Your task to perform on an android device: Open Yahoo.com Image 0: 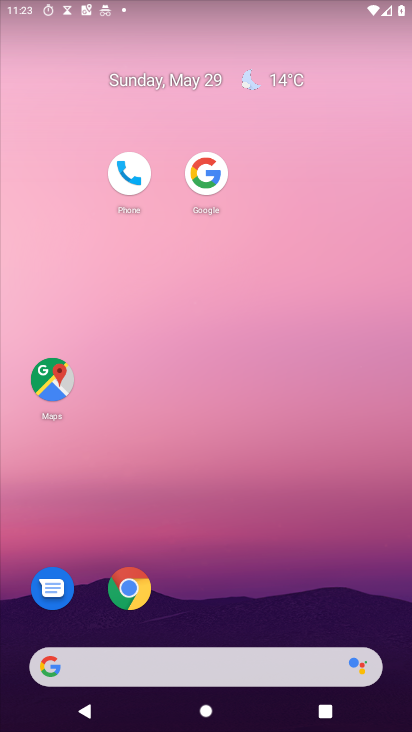
Step 0: drag from (266, 632) to (257, 137)
Your task to perform on an android device: Open Yahoo.com Image 1: 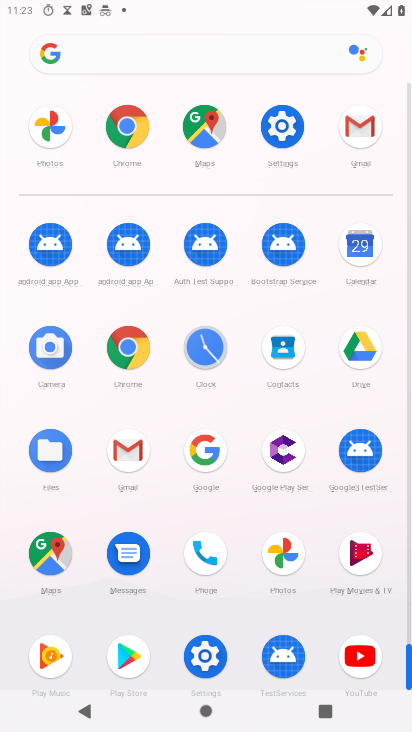
Step 1: click (123, 132)
Your task to perform on an android device: Open Yahoo.com Image 2: 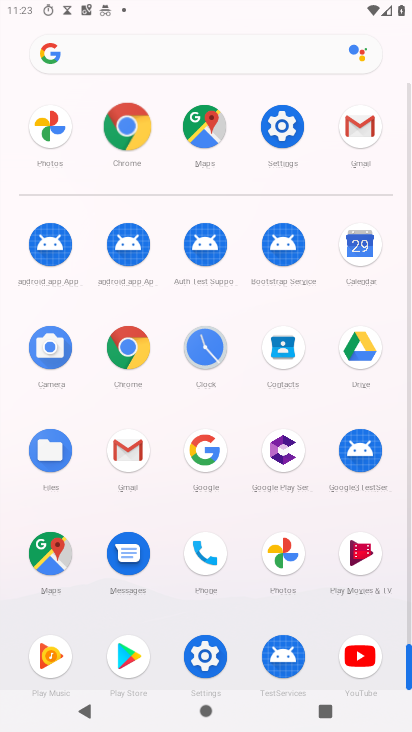
Step 2: click (128, 133)
Your task to perform on an android device: Open Yahoo.com Image 3: 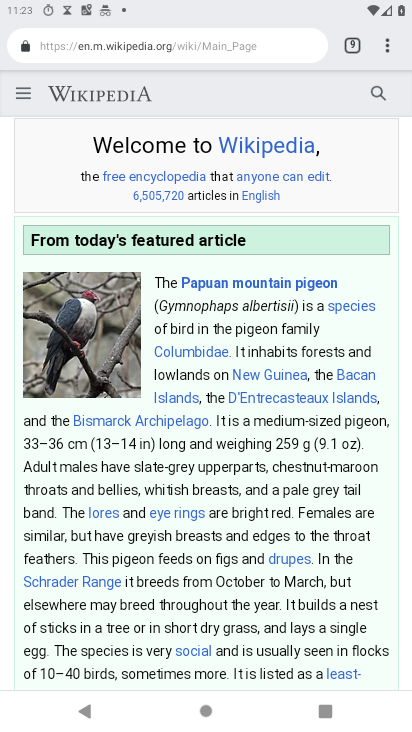
Step 3: click (389, 43)
Your task to perform on an android device: Open Yahoo.com Image 4: 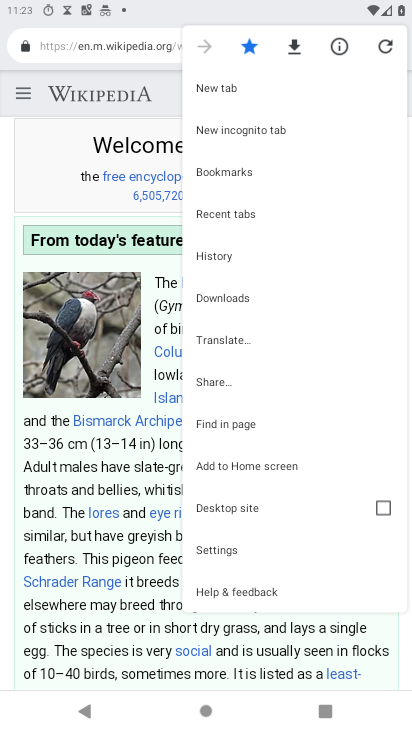
Step 4: click (217, 91)
Your task to perform on an android device: Open Yahoo.com Image 5: 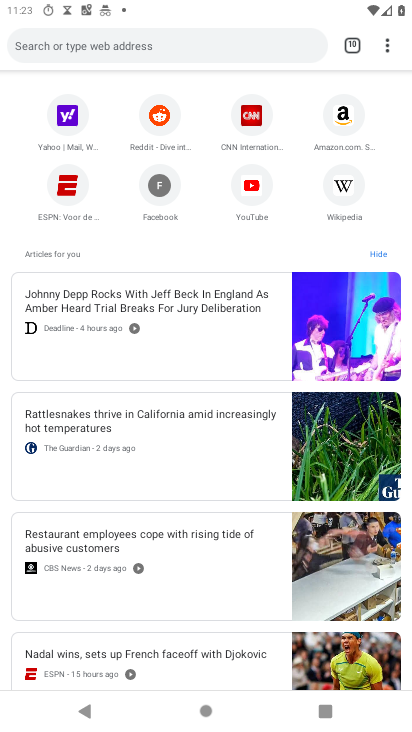
Step 5: click (68, 111)
Your task to perform on an android device: Open Yahoo.com Image 6: 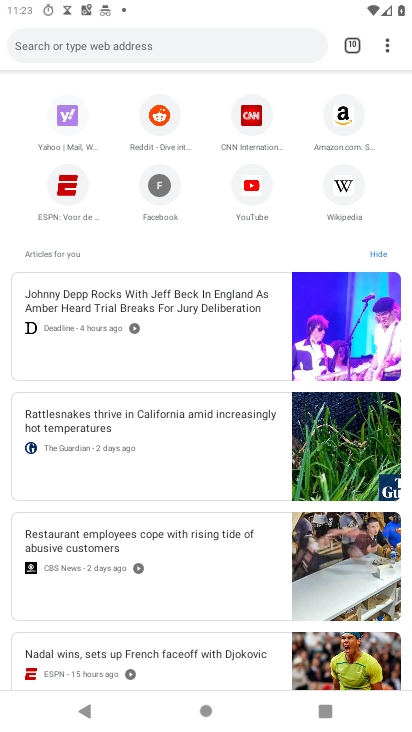
Step 6: click (68, 111)
Your task to perform on an android device: Open Yahoo.com Image 7: 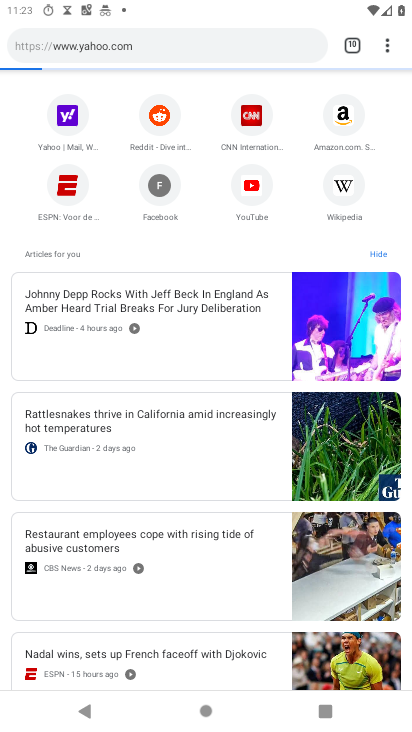
Step 7: click (68, 111)
Your task to perform on an android device: Open Yahoo.com Image 8: 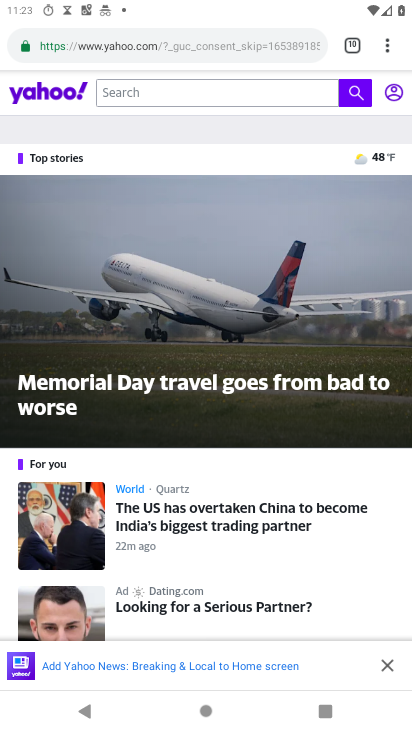
Step 8: task complete